Your task to perform on an android device: Go to sound settings Image 0: 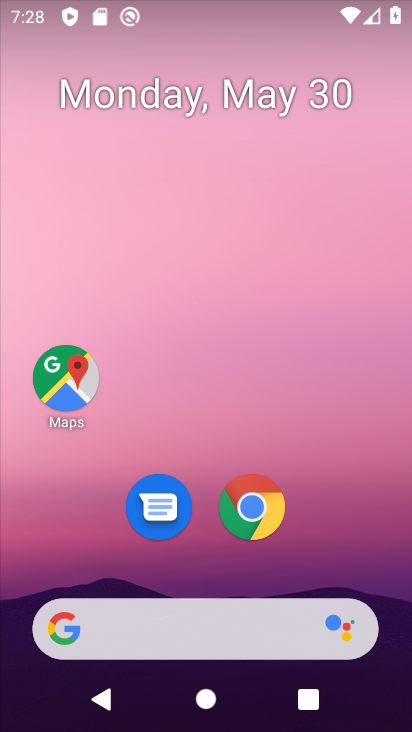
Step 0: drag from (376, 552) to (362, 203)
Your task to perform on an android device: Go to sound settings Image 1: 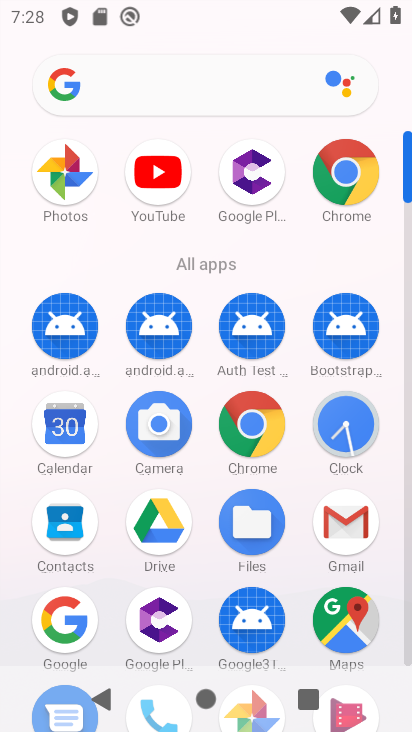
Step 1: drag from (198, 510) to (235, 168)
Your task to perform on an android device: Go to sound settings Image 2: 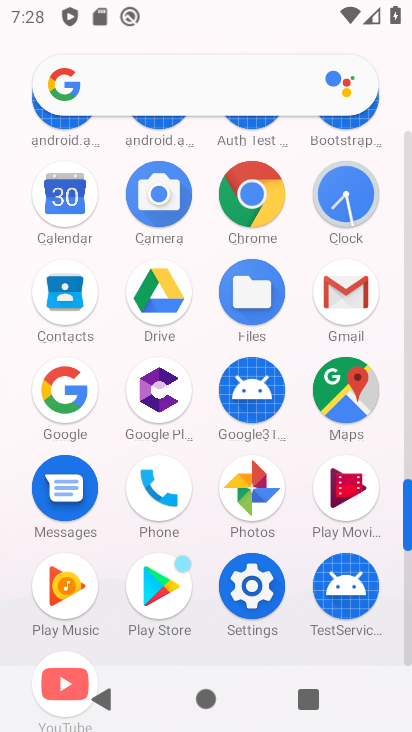
Step 2: click (247, 578)
Your task to perform on an android device: Go to sound settings Image 3: 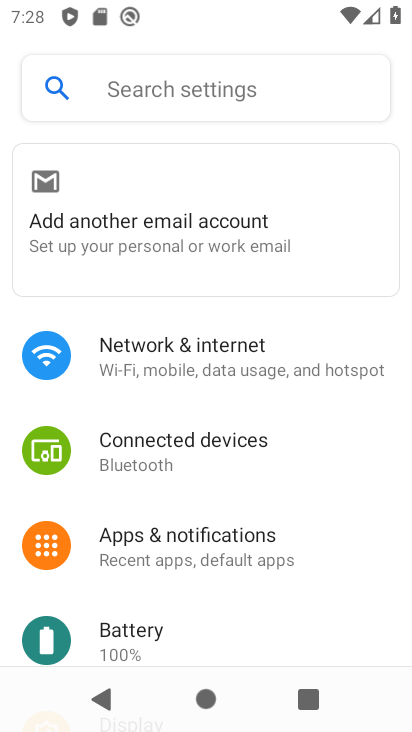
Step 3: drag from (234, 552) to (269, 309)
Your task to perform on an android device: Go to sound settings Image 4: 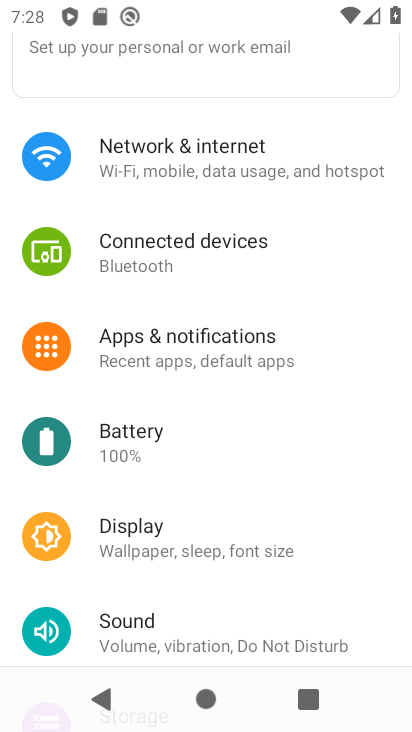
Step 4: drag from (338, 581) to (338, 379)
Your task to perform on an android device: Go to sound settings Image 5: 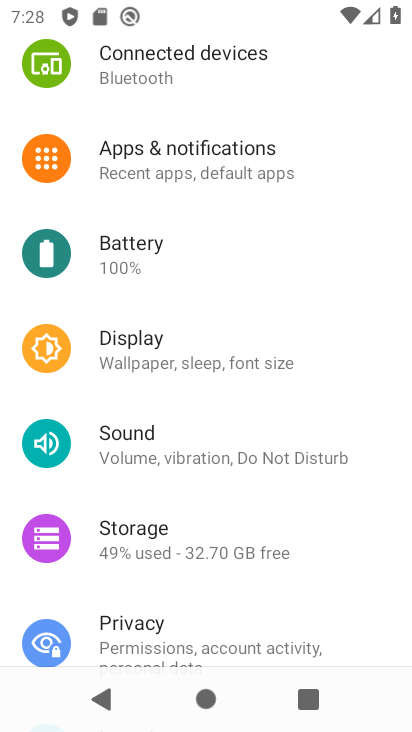
Step 5: click (256, 453)
Your task to perform on an android device: Go to sound settings Image 6: 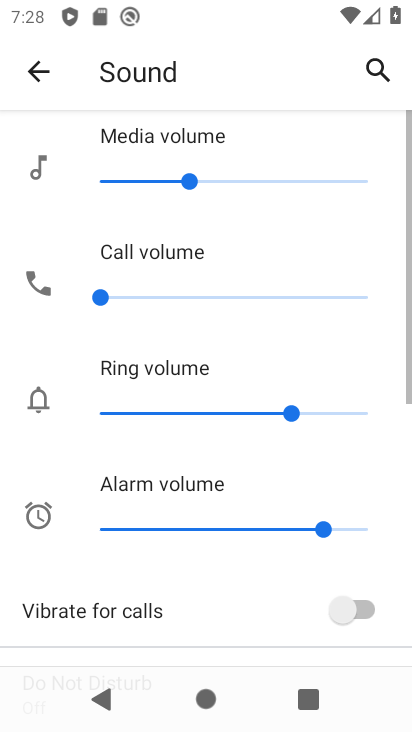
Step 6: task complete